Your task to perform on an android device: empty trash in google photos Image 0: 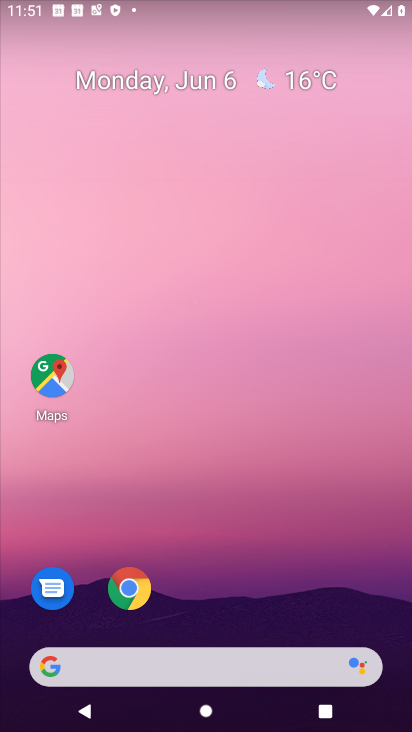
Step 0: click (42, 338)
Your task to perform on an android device: empty trash in google photos Image 1: 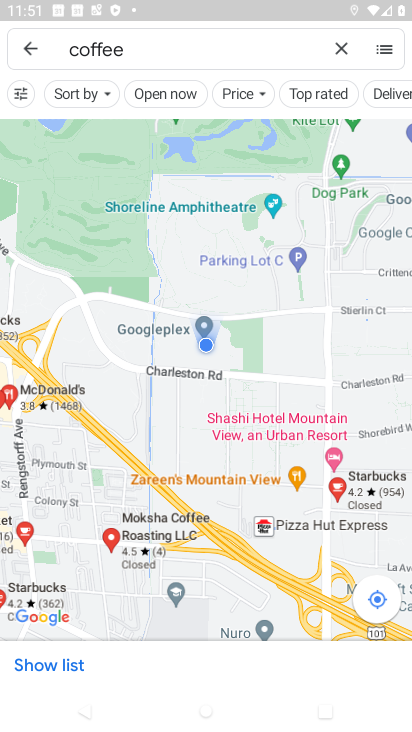
Step 1: press home button
Your task to perform on an android device: empty trash in google photos Image 2: 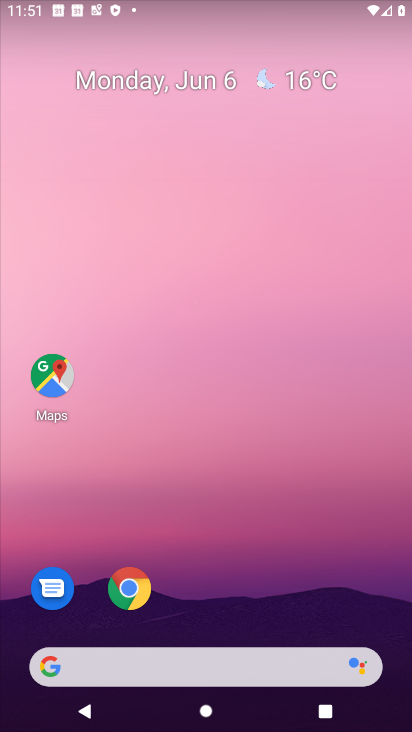
Step 2: drag from (195, 613) to (236, 26)
Your task to perform on an android device: empty trash in google photos Image 3: 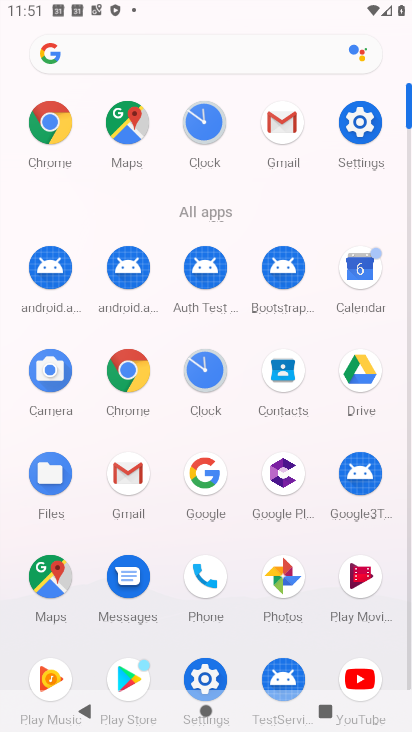
Step 3: click (297, 599)
Your task to perform on an android device: empty trash in google photos Image 4: 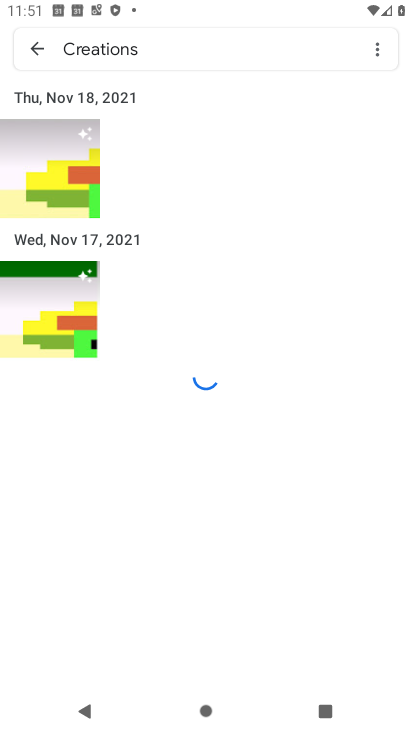
Step 4: click (44, 51)
Your task to perform on an android device: empty trash in google photos Image 5: 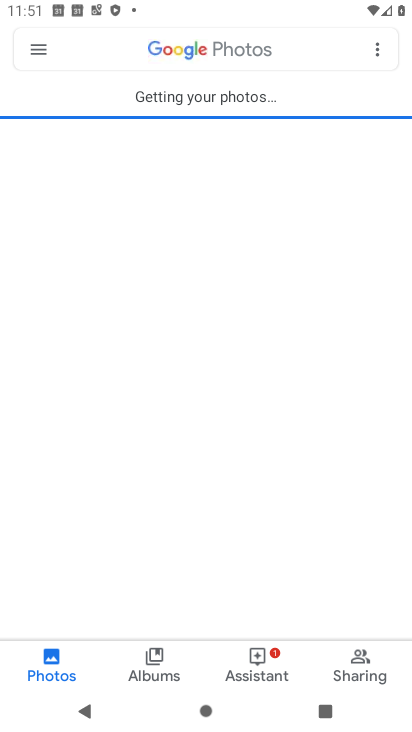
Step 5: click (44, 51)
Your task to perform on an android device: empty trash in google photos Image 6: 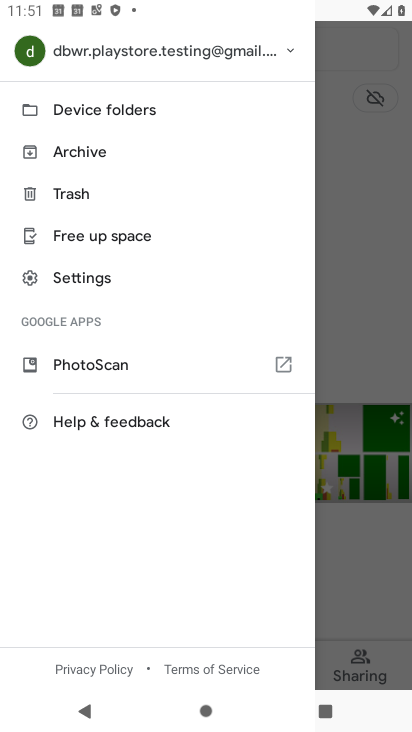
Step 6: click (68, 200)
Your task to perform on an android device: empty trash in google photos Image 7: 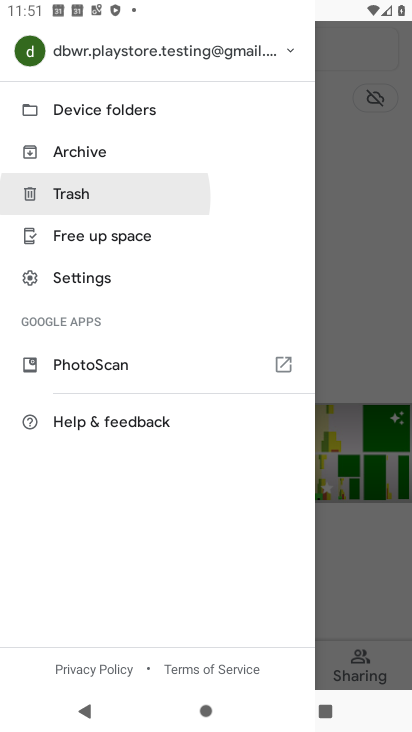
Step 7: click (68, 200)
Your task to perform on an android device: empty trash in google photos Image 8: 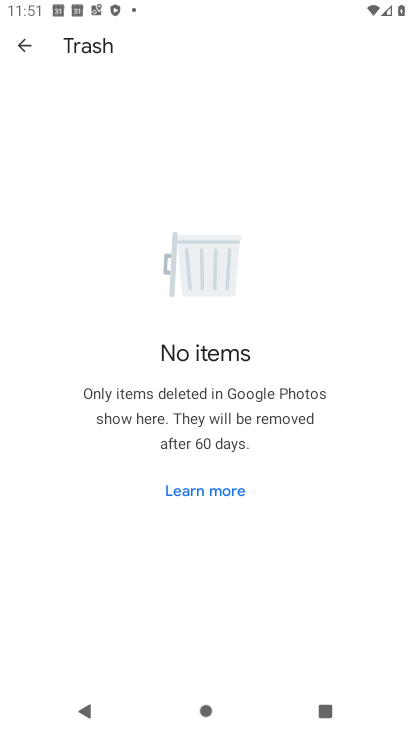
Step 8: task complete